Your task to perform on an android device: set default search engine in the chrome app Image 0: 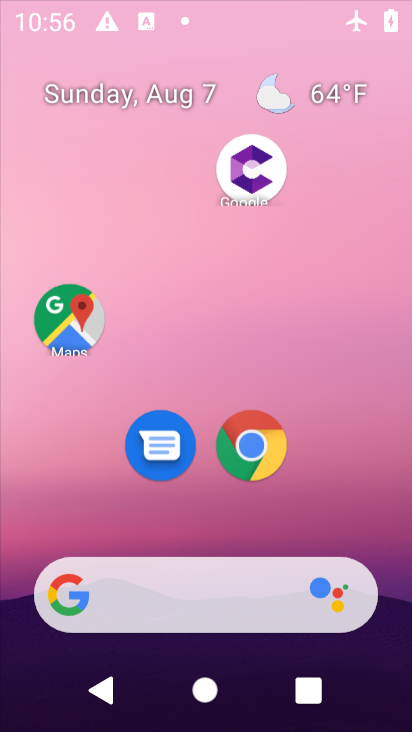
Step 0: press home button
Your task to perform on an android device: set default search engine in the chrome app Image 1: 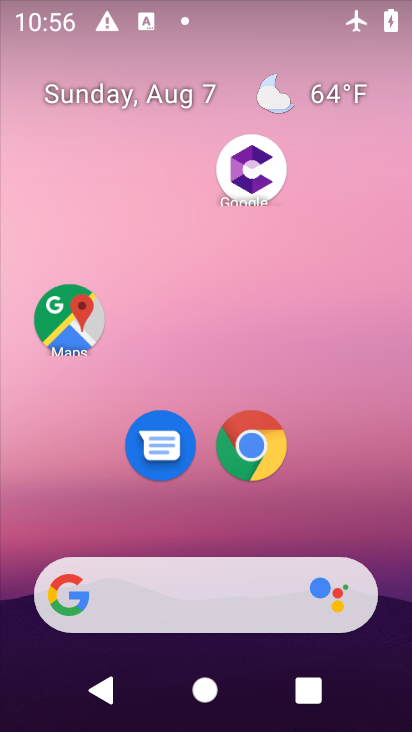
Step 1: click (247, 440)
Your task to perform on an android device: set default search engine in the chrome app Image 2: 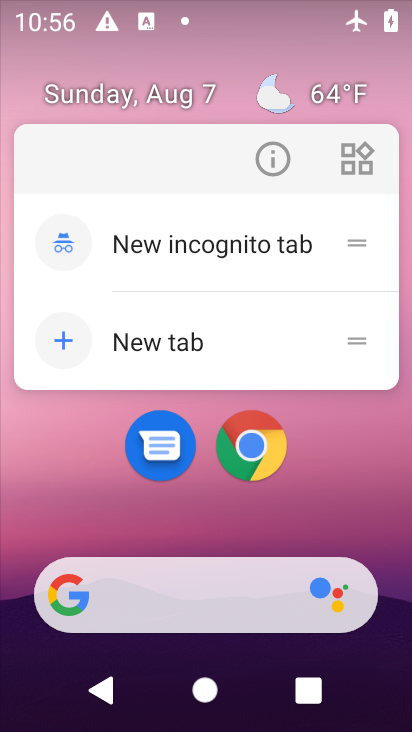
Step 2: click (347, 504)
Your task to perform on an android device: set default search engine in the chrome app Image 3: 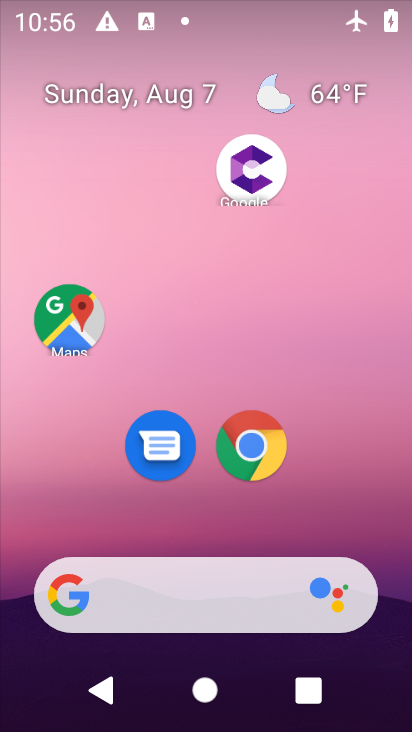
Step 3: drag from (301, 371) to (301, 117)
Your task to perform on an android device: set default search engine in the chrome app Image 4: 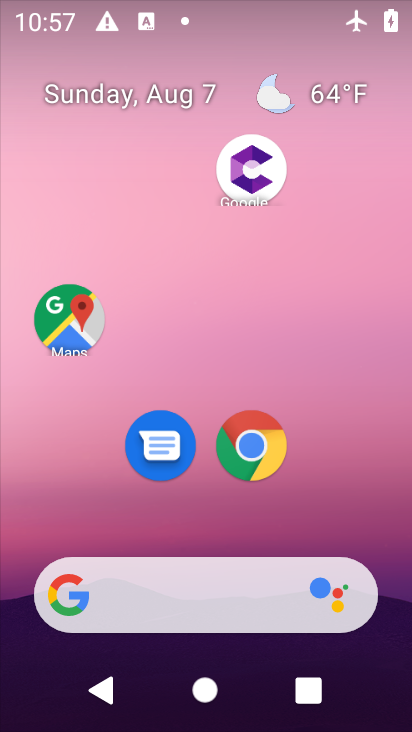
Step 4: click (246, 441)
Your task to perform on an android device: set default search engine in the chrome app Image 5: 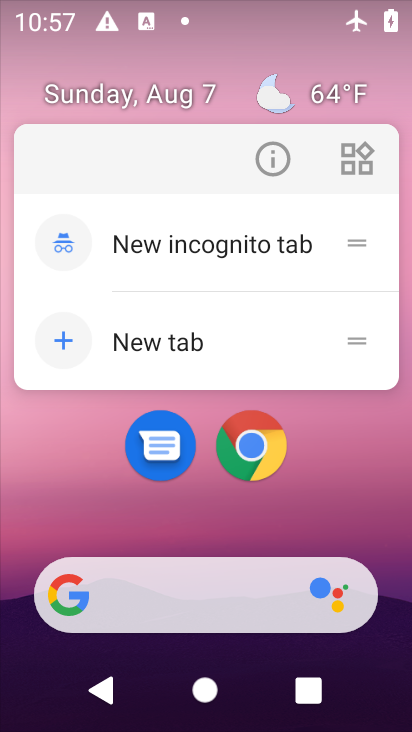
Step 5: click (321, 502)
Your task to perform on an android device: set default search engine in the chrome app Image 6: 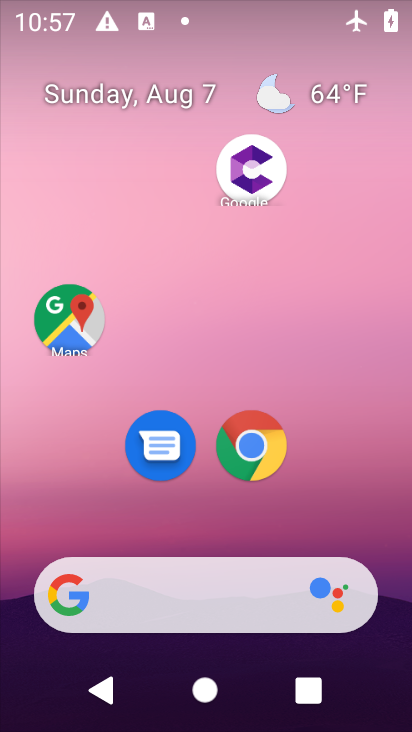
Step 6: drag from (337, 531) to (351, 58)
Your task to perform on an android device: set default search engine in the chrome app Image 7: 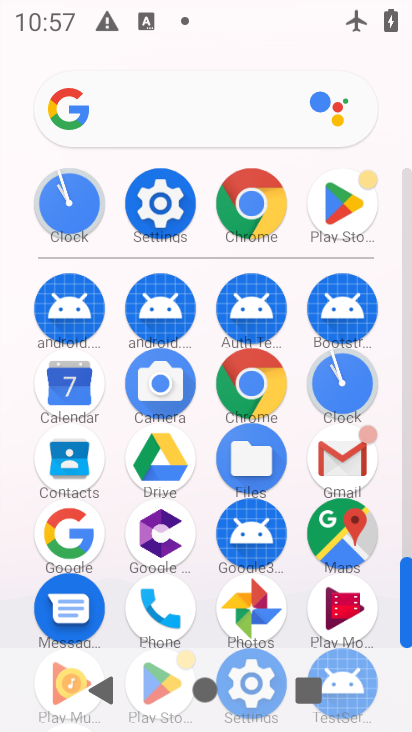
Step 7: click (247, 373)
Your task to perform on an android device: set default search engine in the chrome app Image 8: 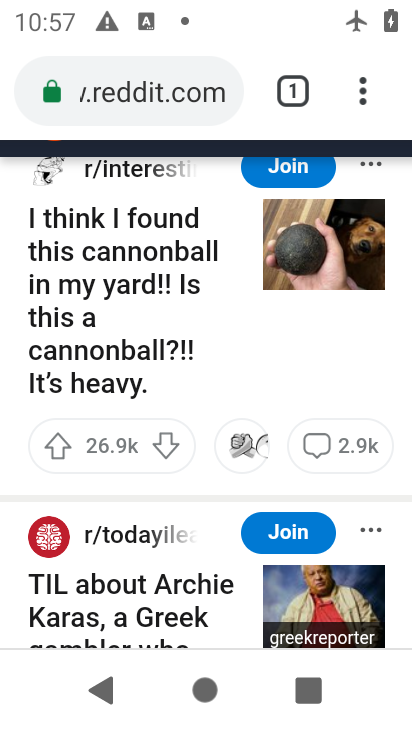
Step 8: click (361, 91)
Your task to perform on an android device: set default search engine in the chrome app Image 9: 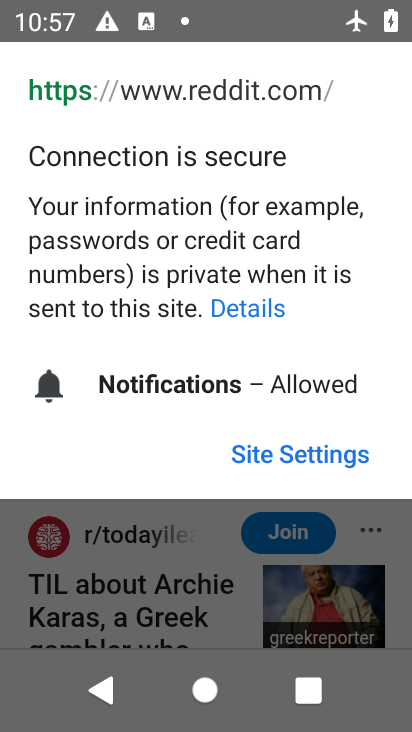
Step 9: click (172, 543)
Your task to perform on an android device: set default search engine in the chrome app Image 10: 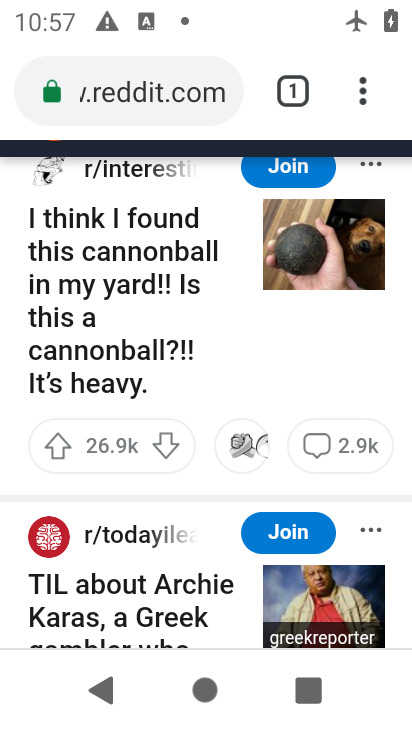
Step 10: click (362, 101)
Your task to perform on an android device: set default search engine in the chrome app Image 11: 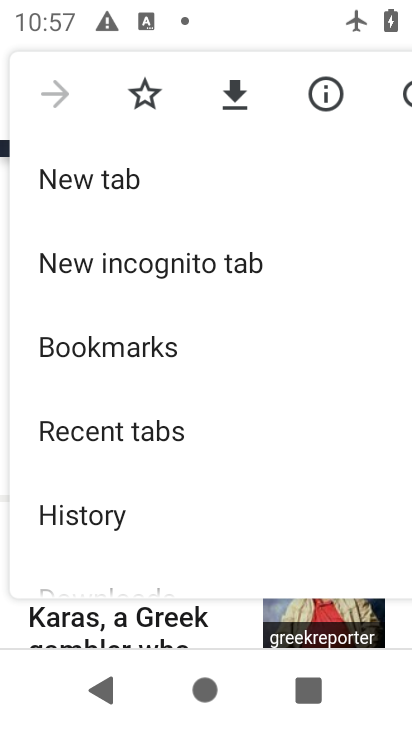
Step 11: drag from (199, 514) to (275, 44)
Your task to perform on an android device: set default search engine in the chrome app Image 12: 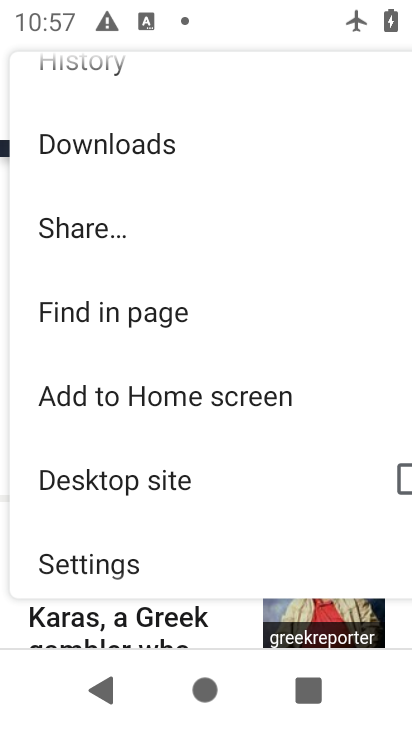
Step 12: click (145, 562)
Your task to perform on an android device: set default search engine in the chrome app Image 13: 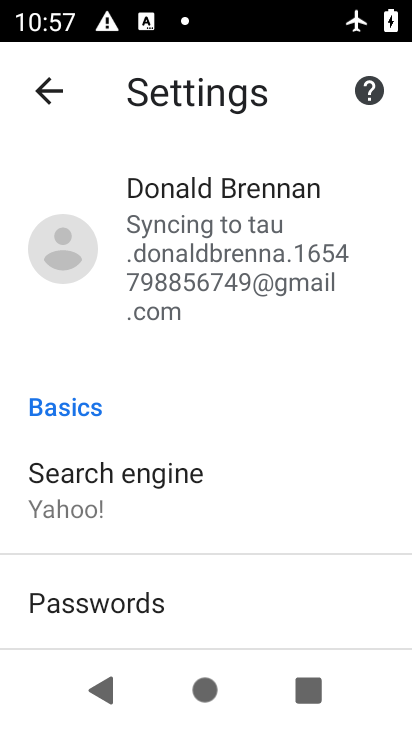
Step 13: click (156, 495)
Your task to perform on an android device: set default search engine in the chrome app Image 14: 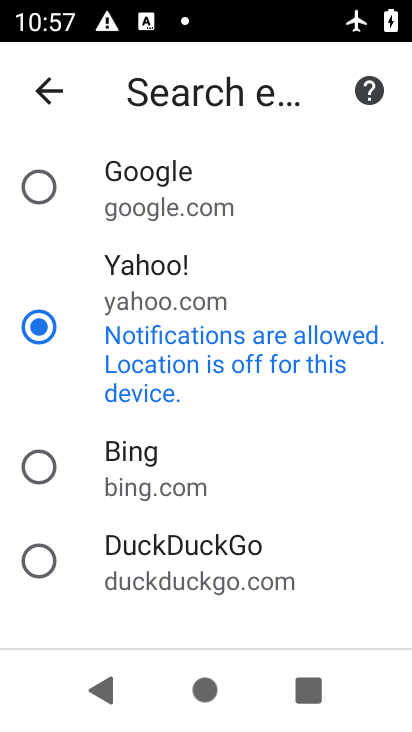
Step 14: click (40, 182)
Your task to perform on an android device: set default search engine in the chrome app Image 15: 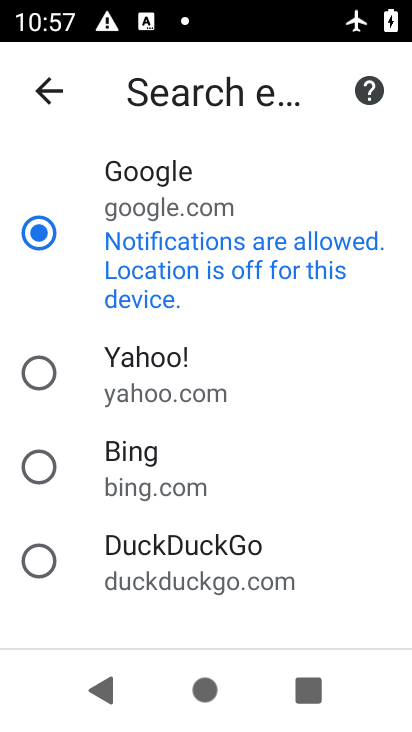
Step 15: task complete